Your task to perform on an android device: toggle translation in the chrome app Image 0: 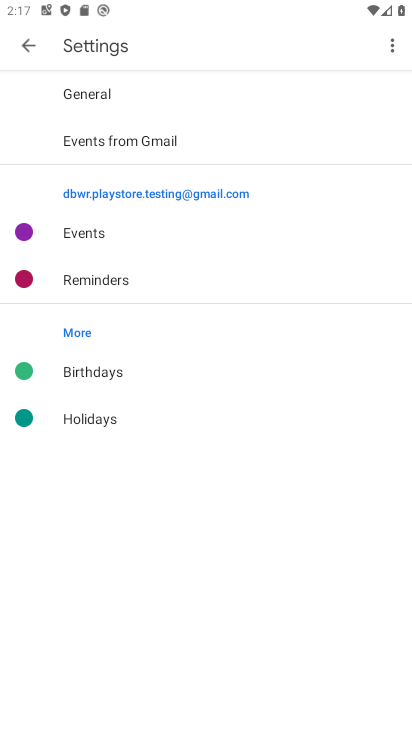
Step 0: press back button
Your task to perform on an android device: toggle translation in the chrome app Image 1: 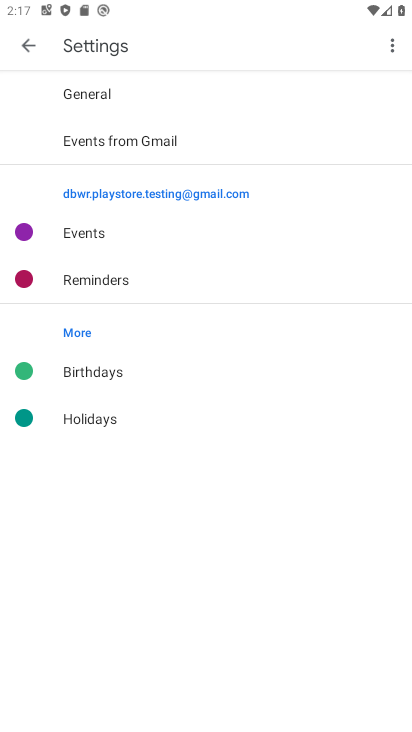
Step 1: press back button
Your task to perform on an android device: toggle translation in the chrome app Image 2: 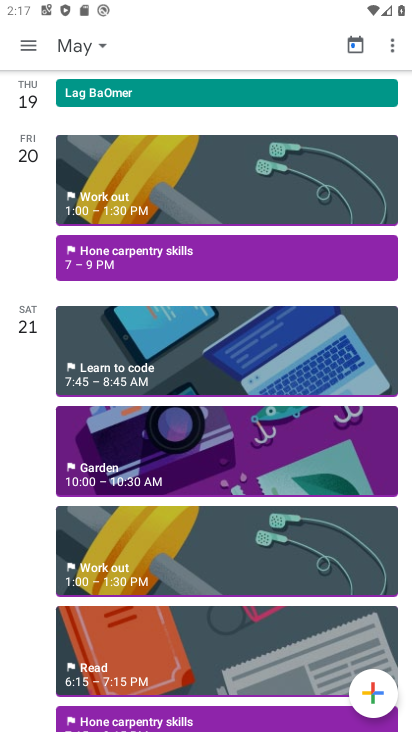
Step 2: press back button
Your task to perform on an android device: toggle translation in the chrome app Image 3: 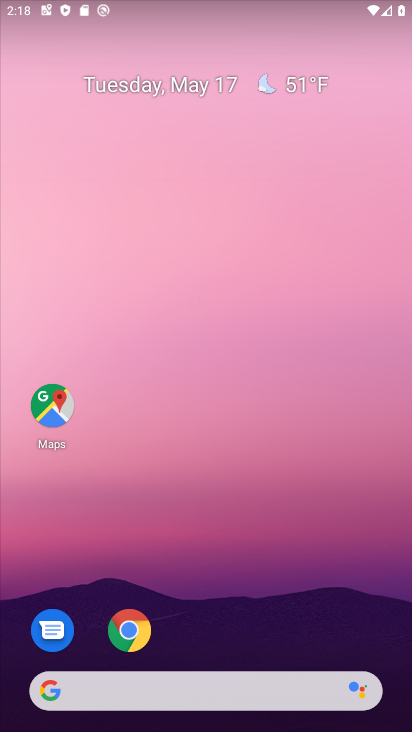
Step 3: click (125, 612)
Your task to perform on an android device: toggle translation in the chrome app Image 4: 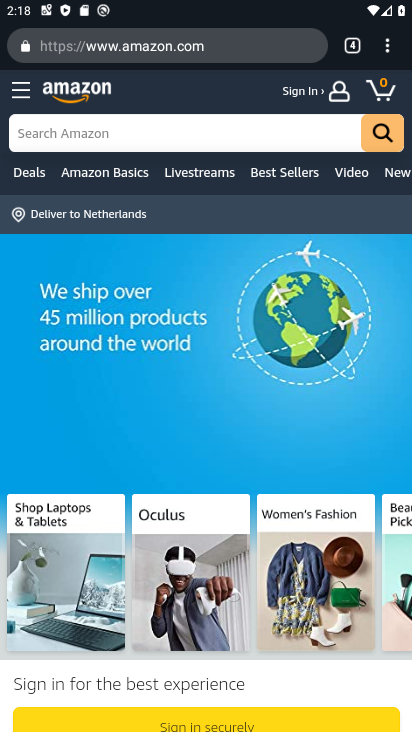
Step 4: drag from (390, 41) to (229, 555)
Your task to perform on an android device: toggle translation in the chrome app Image 5: 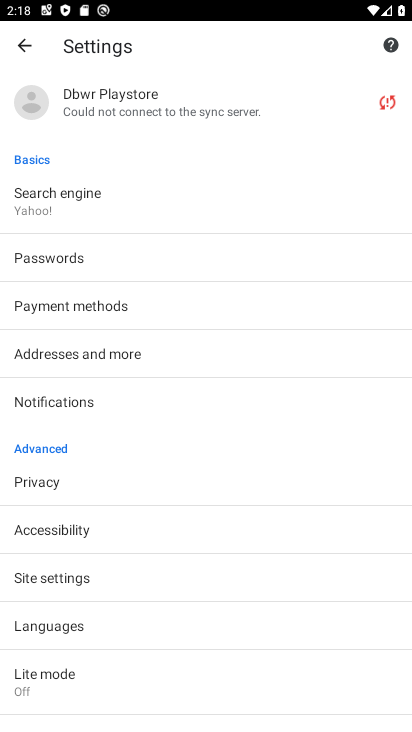
Step 5: click (72, 623)
Your task to perform on an android device: toggle translation in the chrome app Image 6: 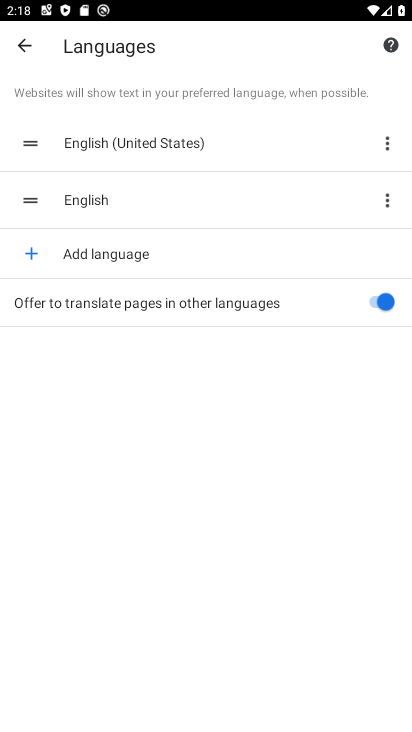
Step 6: click (377, 303)
Your task to perform on an android device: toggle translation in the chrome app Image 7: 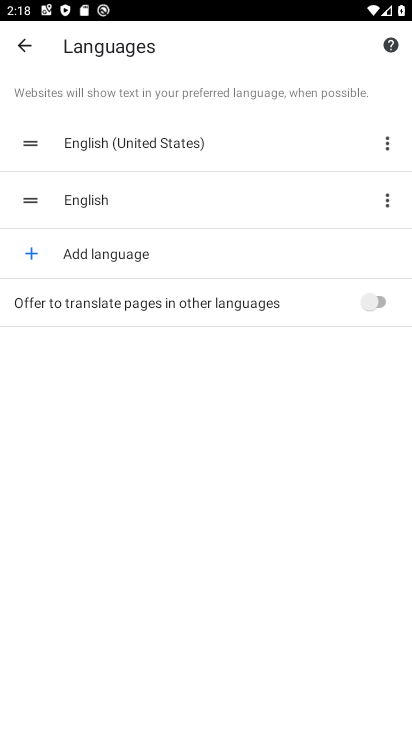
Step 7: task complete